Your task to perform on an android device: open app "ZOOM Cloud Meetings" (install if not already installed) and enter user name: "bauxite@icloud.com" and password: "dim" Image 0: 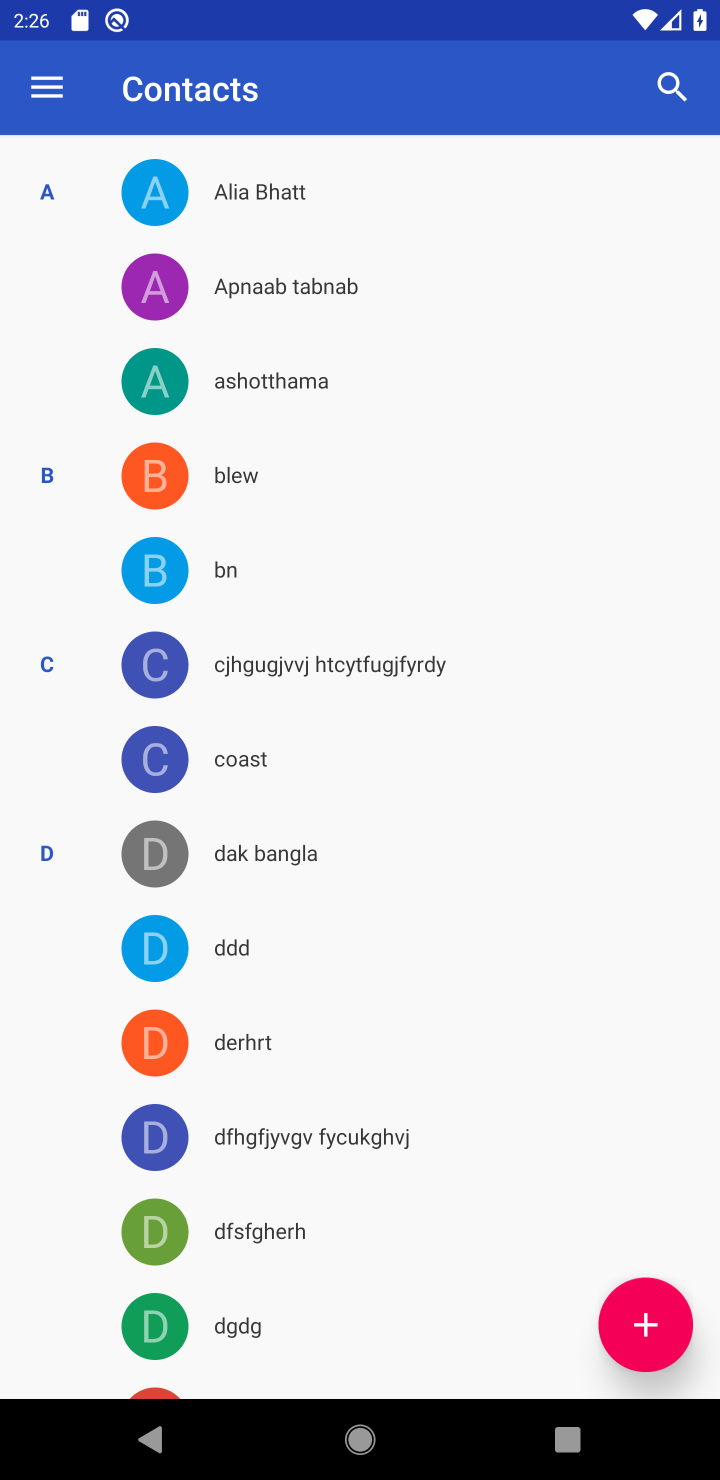
Step 0: press home button
Your task to perform on an android device: open app "ZOOM Cloud Meetings" (install if not already installed) and enter user name: "bauxite@icloud.com" and password: "dim" Image 1: 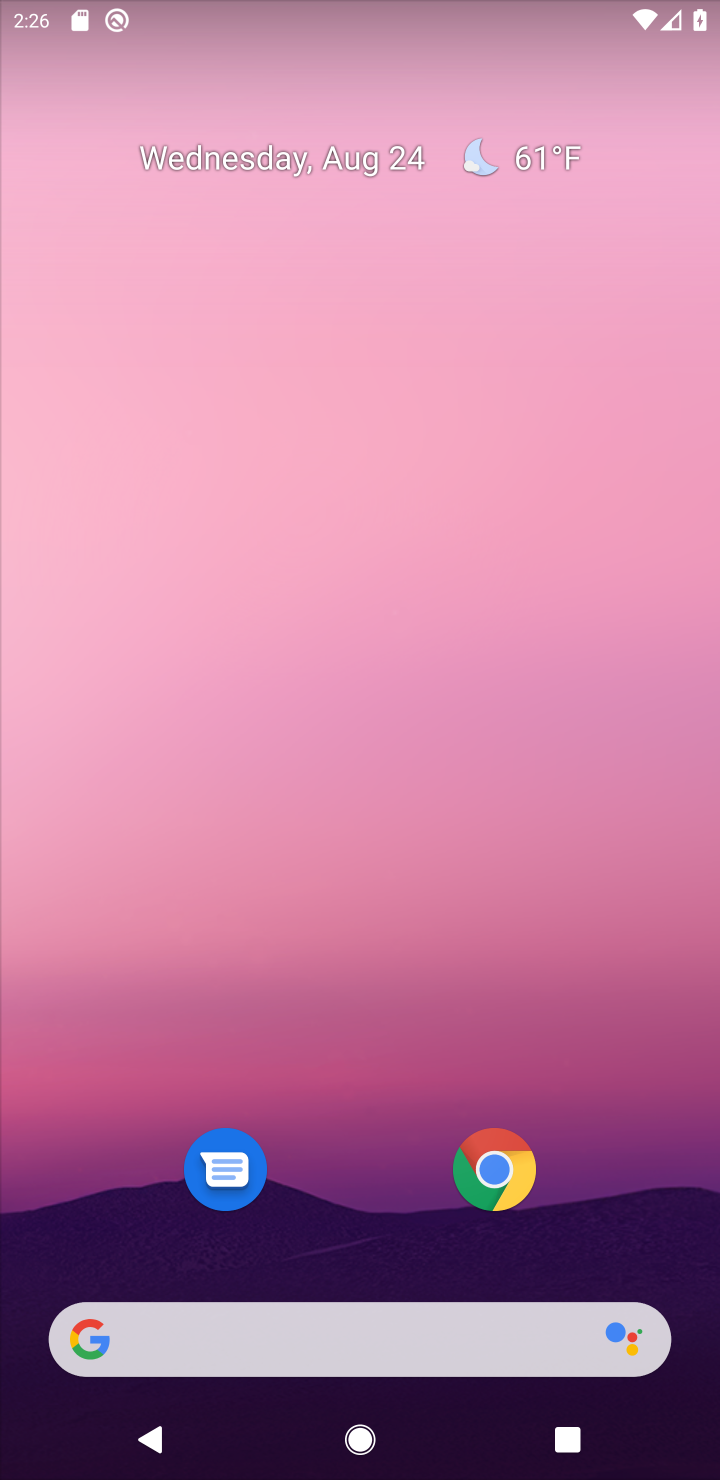
Step 1: drag from (412, 1253) to (43, 197)
Your task to perform on an android device: open app "ZOOM Cloud Meetings" (install if not already installed) and enter user name: "bauxite@icloud.com" and password: "dim" Image 2: 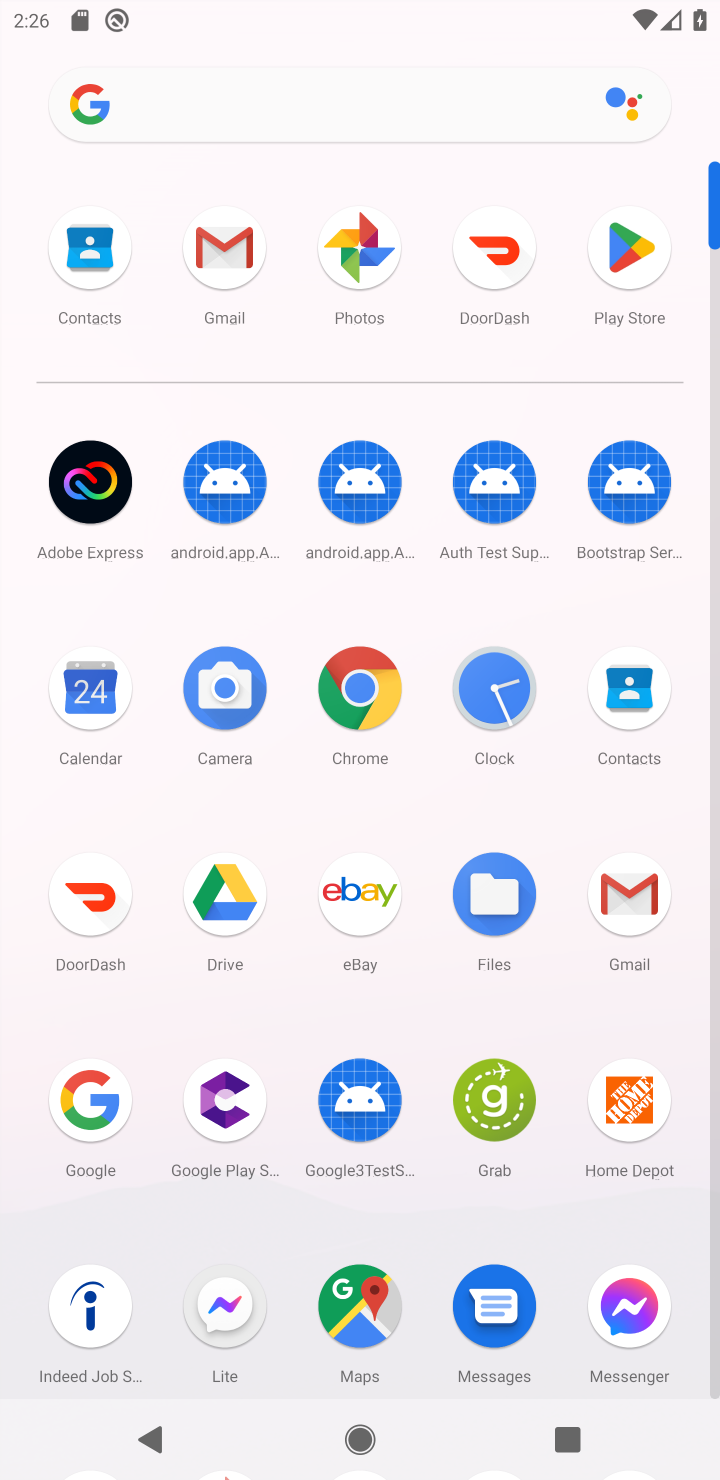
Step 2: click (628, 237)
Your task to perform on an android device: open app "ZOOM Cloud Meetings" (install if not already installed) and enter user name: "bauxite@icloud.com" and password: "dim" Image 3: 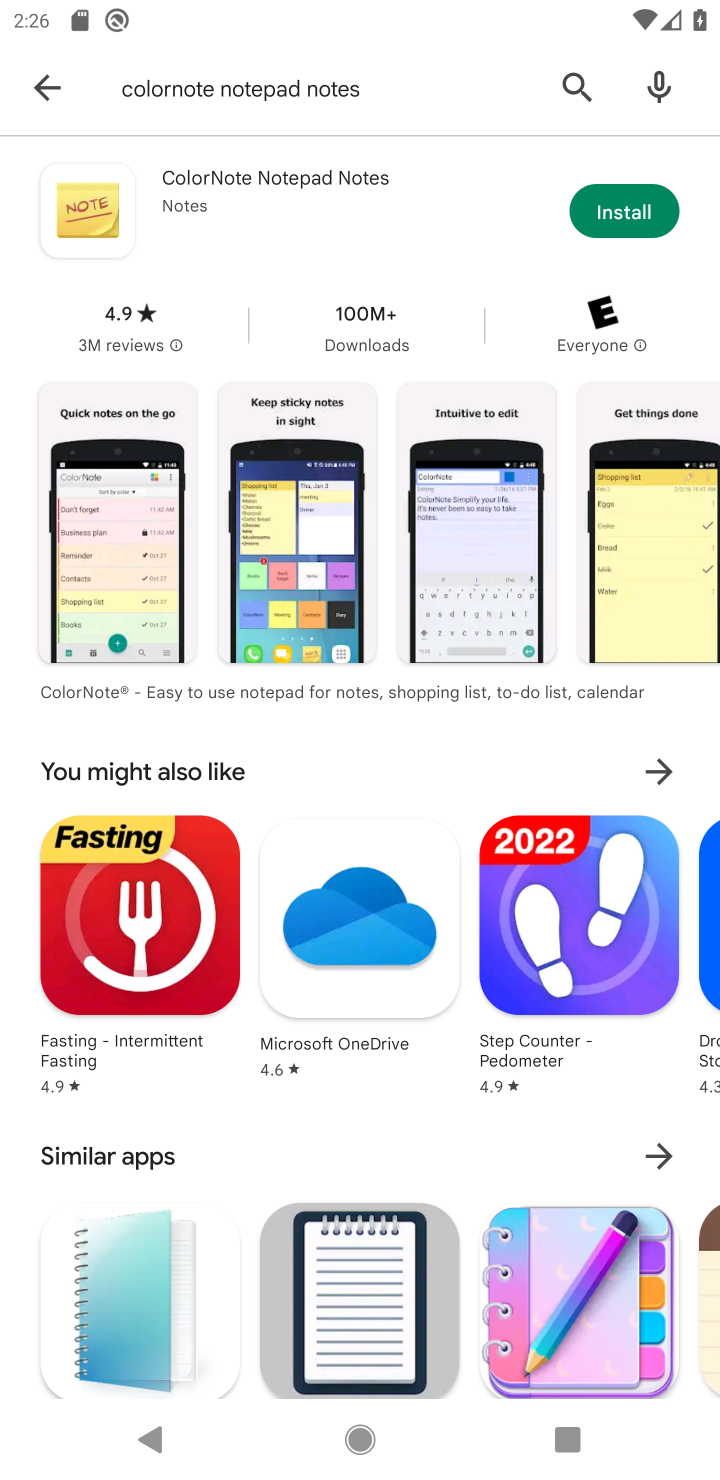
Step 3: click (45, 77)
Your task to perform on an android device: open app "ZOOM Cloud Meetings" (install if not already installed) and enter user name: "bauxite@icloud.com" and password: "dim" Image 4: 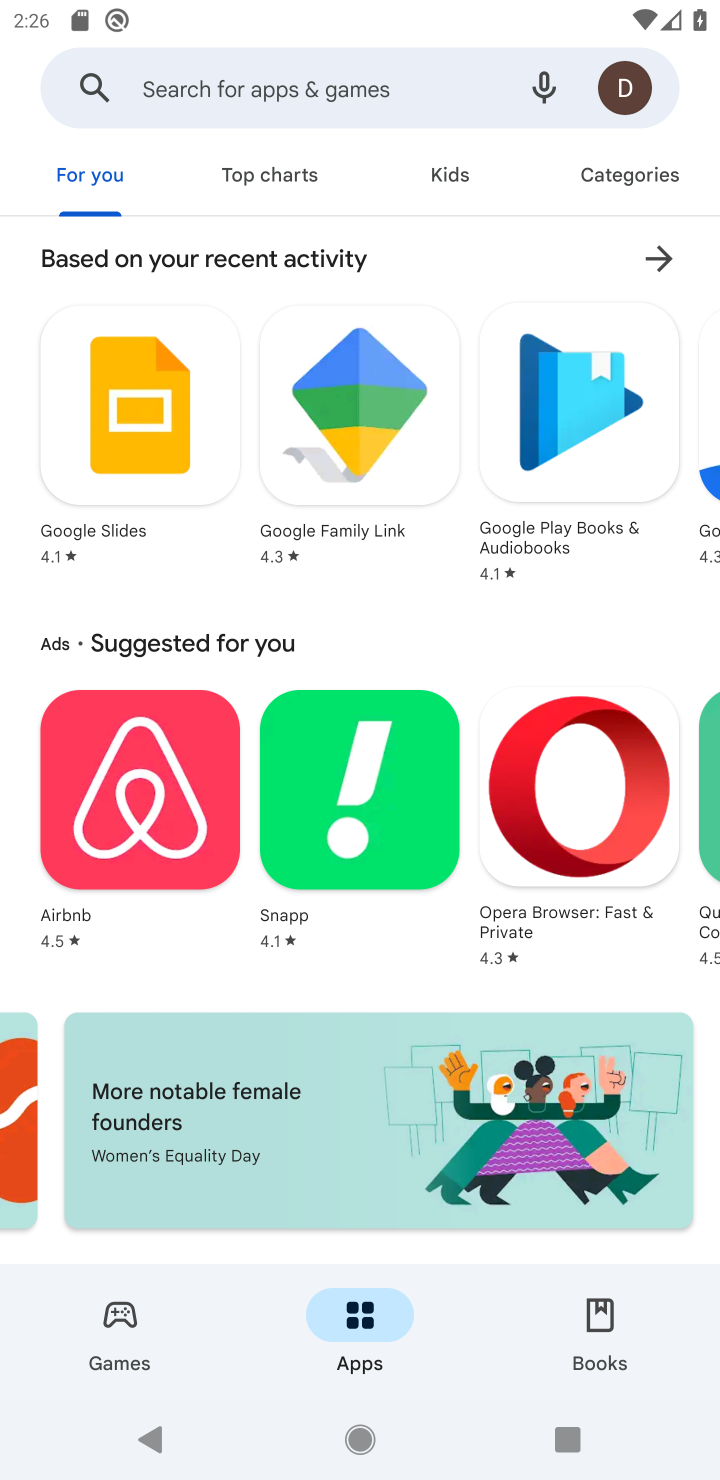
Step 4: click (170, 90)
Your task to perform on an android device: open app "ZOOM Cloud Meetings" (install if not already installed) and enter user name: "bauxite@icloud.com" and password: "dim" Image 5: 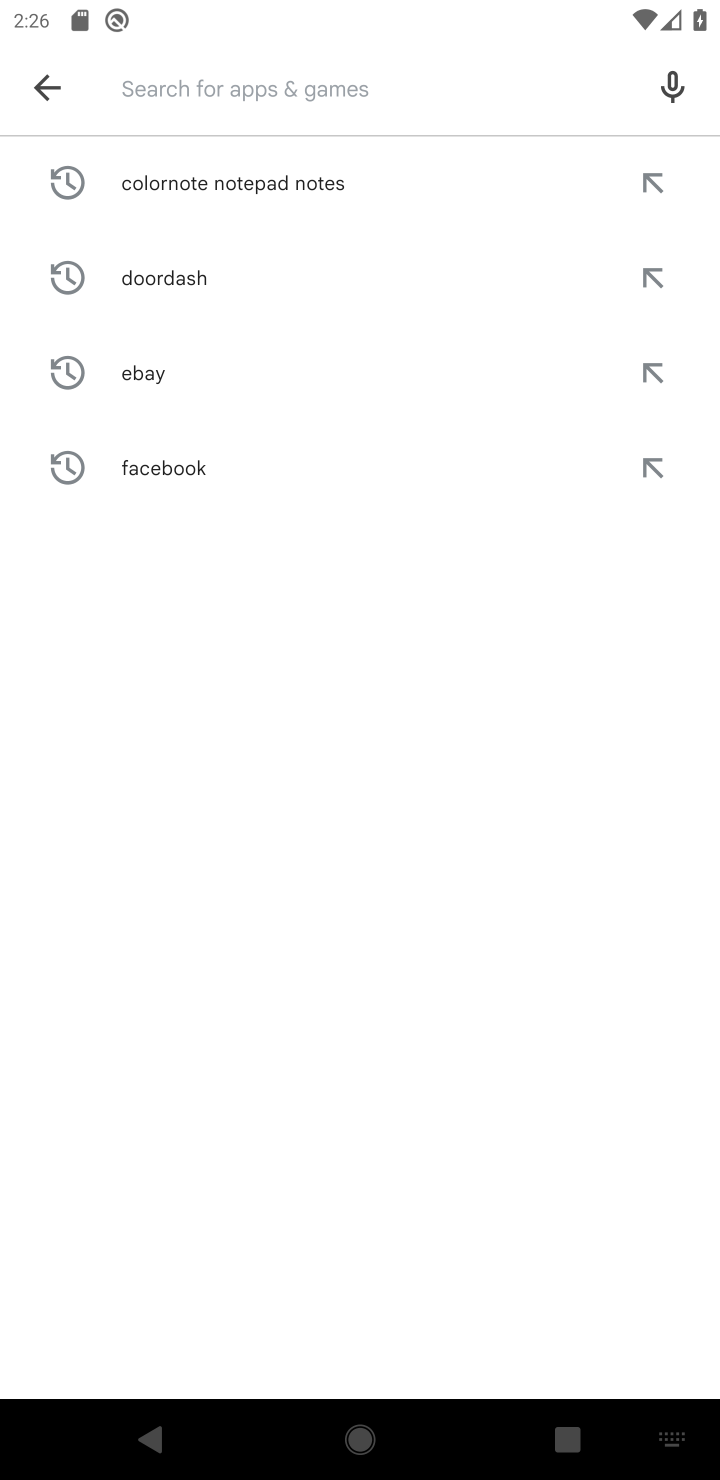
Step 5: drag from (149, 1452) to (271, 1473)
Your task to perform on an android device: open app "ZOOM Cloud Meetings" (install if not already installed) and enter user name: "bauxite@icloud.com" and password: "dim" Image 6: 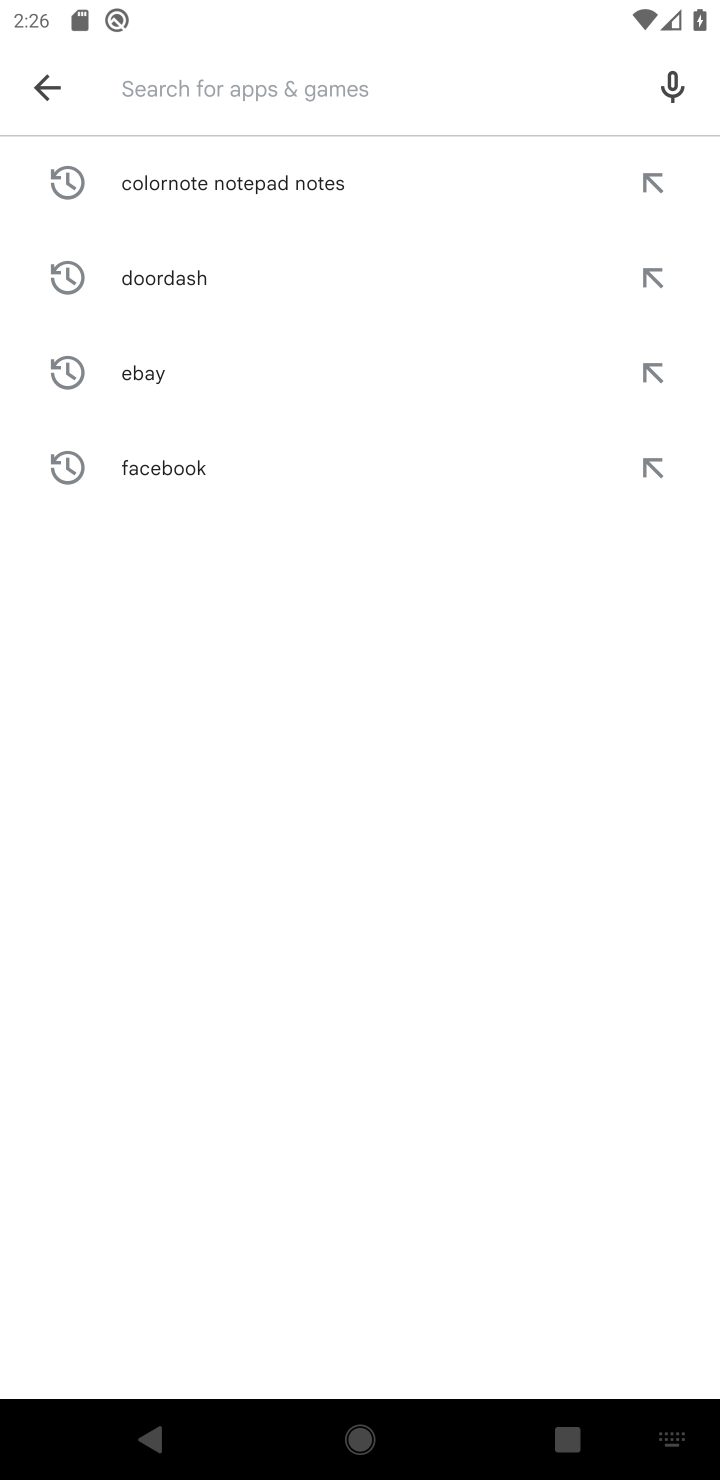
Step 6: type "ZOOM Cloud Meetings"
Your task to perform on an android device: open app "ZOOM Cloud Meetings" (install if not already installed) and enter user name: "bauxite@icloud.com" and password: "dim" Image 7: 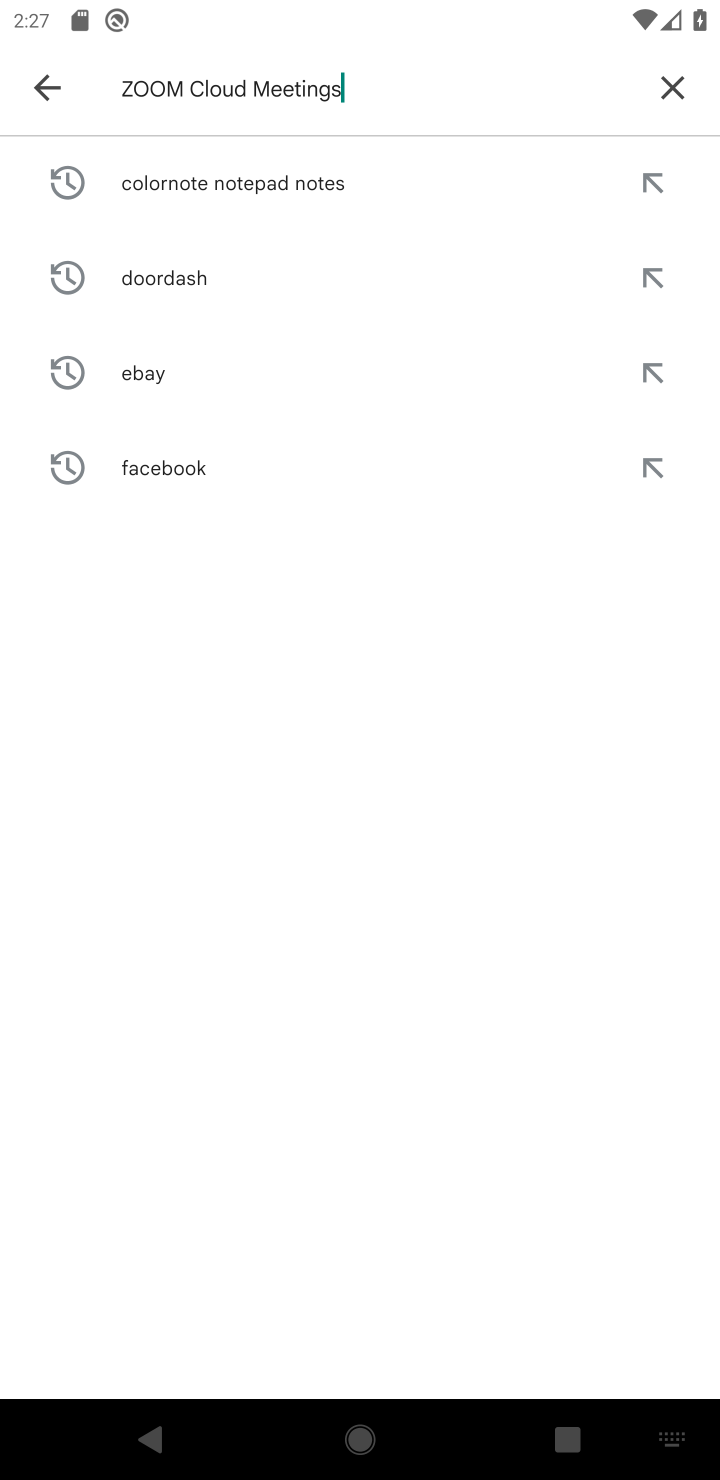
Step 7: drag from (271, 1473) to (683, 818)
Your task to perform on an android device: open app "ZOOM Cloud Meetings" (install if not already installed) and enter user name: "bauxite@icloud.com" and password: "dim" Image 8: 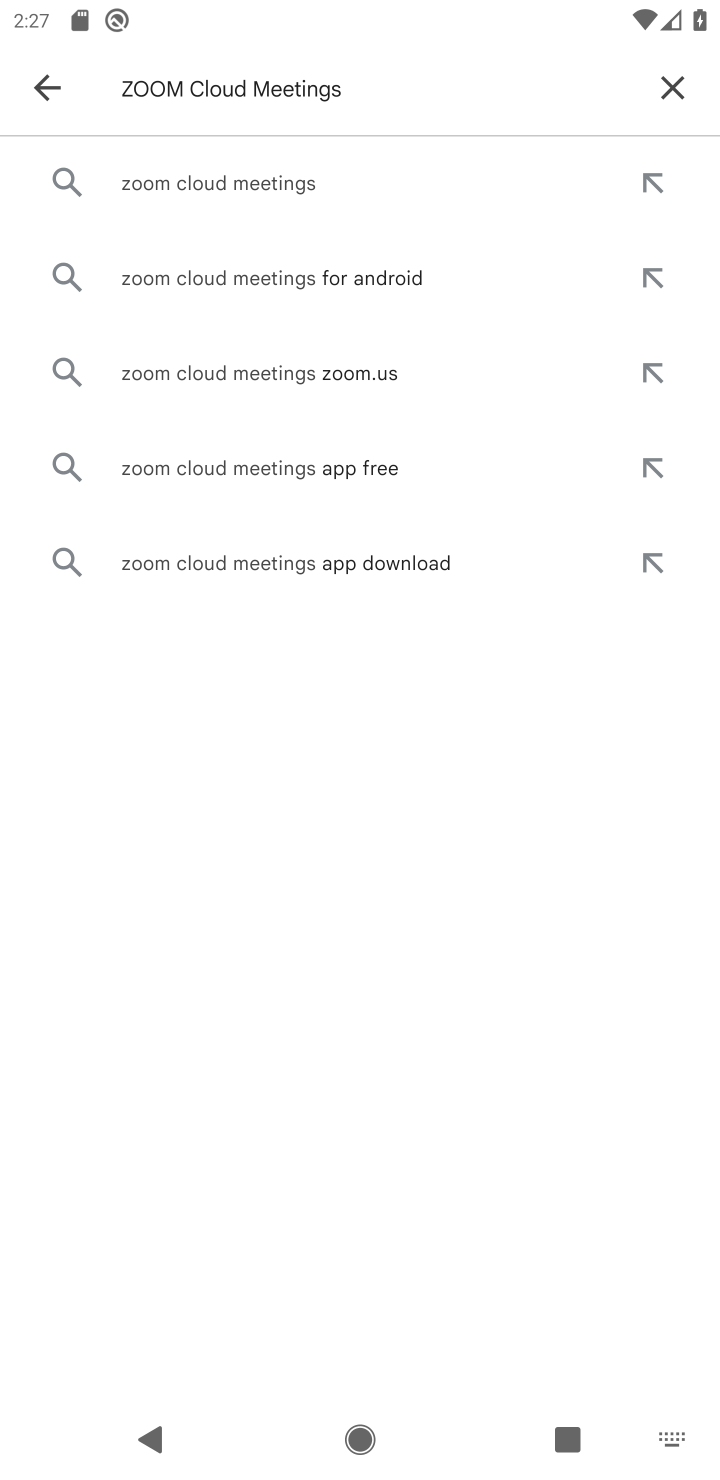
Step 8: click (326, 186)
Your task to perform on an android device: open app "ZOOM Cloud Meetings" (install if not already installed) and enter user name: "bauxite@icloud.com" and password: "dim" Image 9: 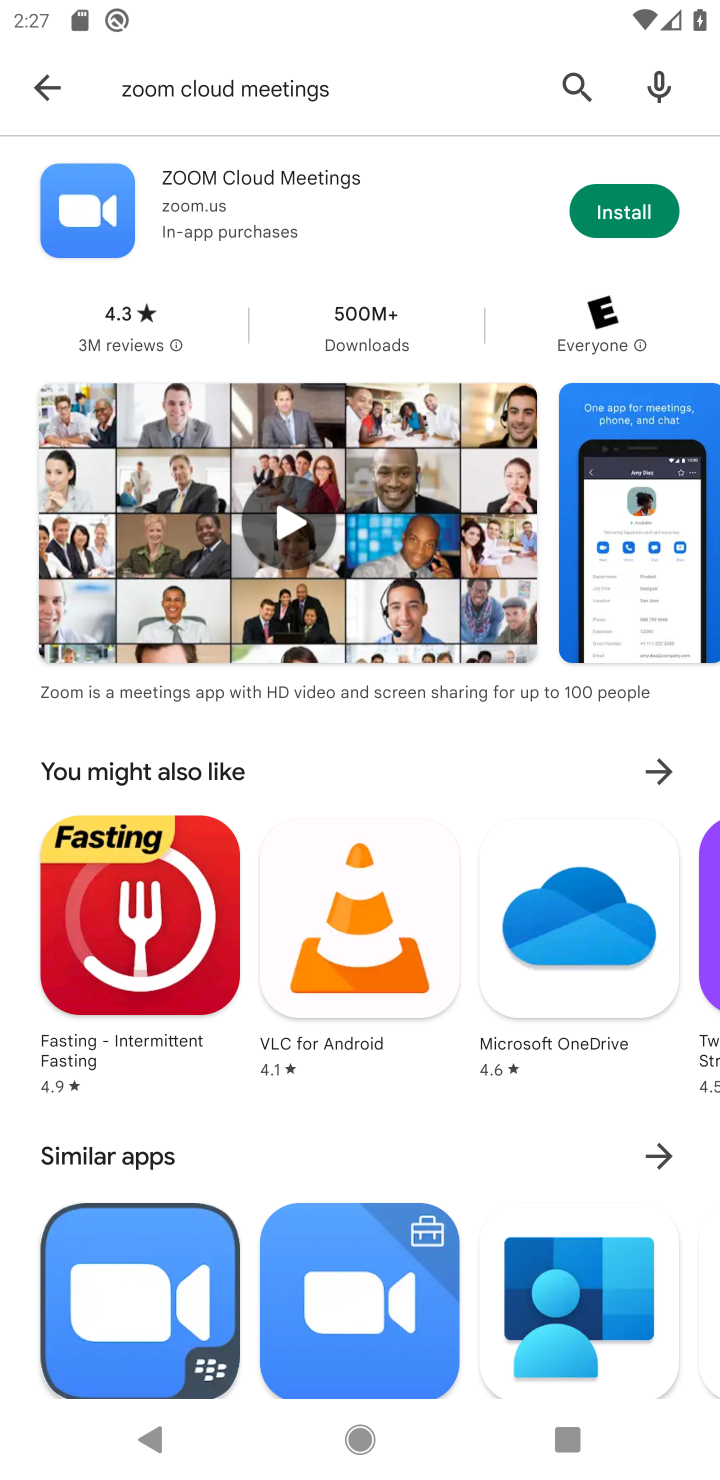
Step 9: click (649, 219)
Your task to perform on an android device: open app "ZOOM Cloud Meetings" (install if not already installed) and enter user name: "bauxite@icloud.com" and password: "dim" Image 10: 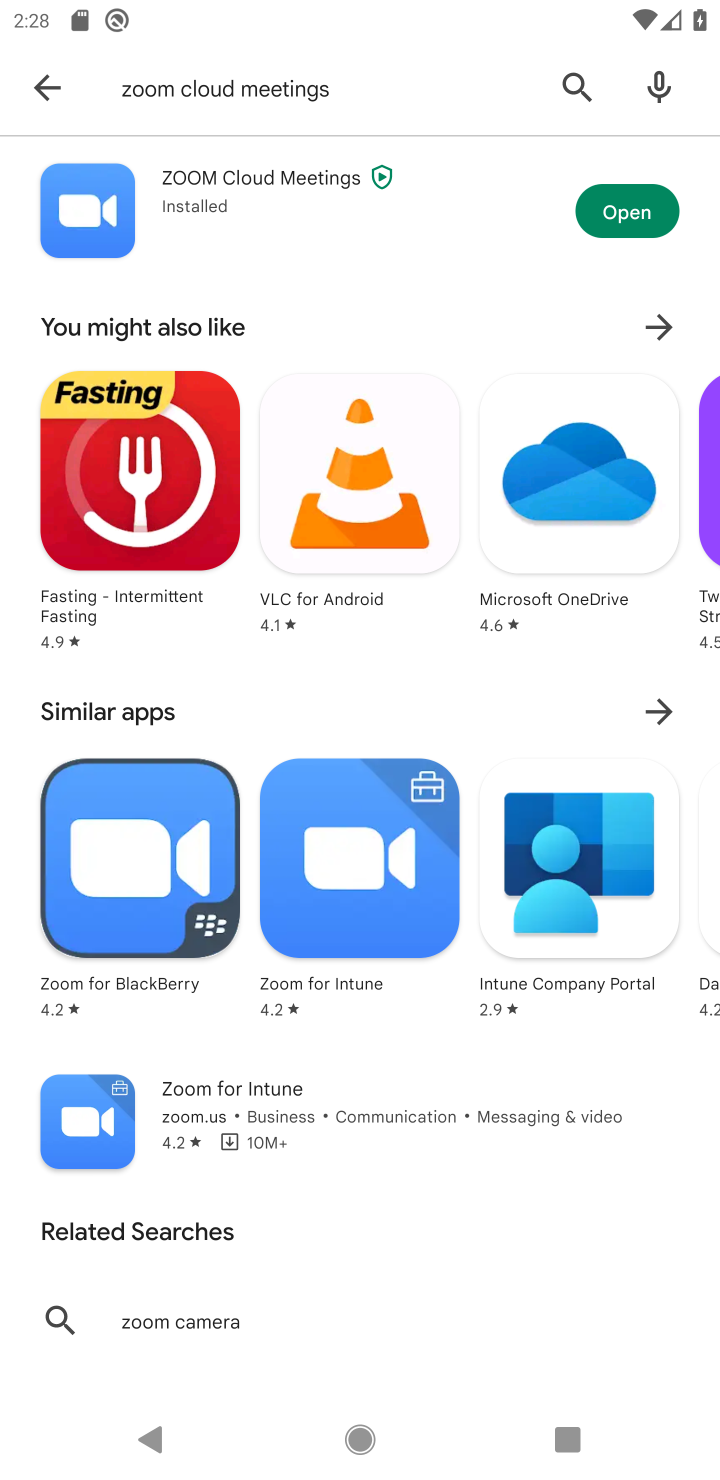
Step 10: click (639, 229)
Your task to perform on an android device: open app "ZOOM Cloud Meetings" (install if not already installed) and enter user name: "bauxite@icloud.com" and password: "dim" Image 11: 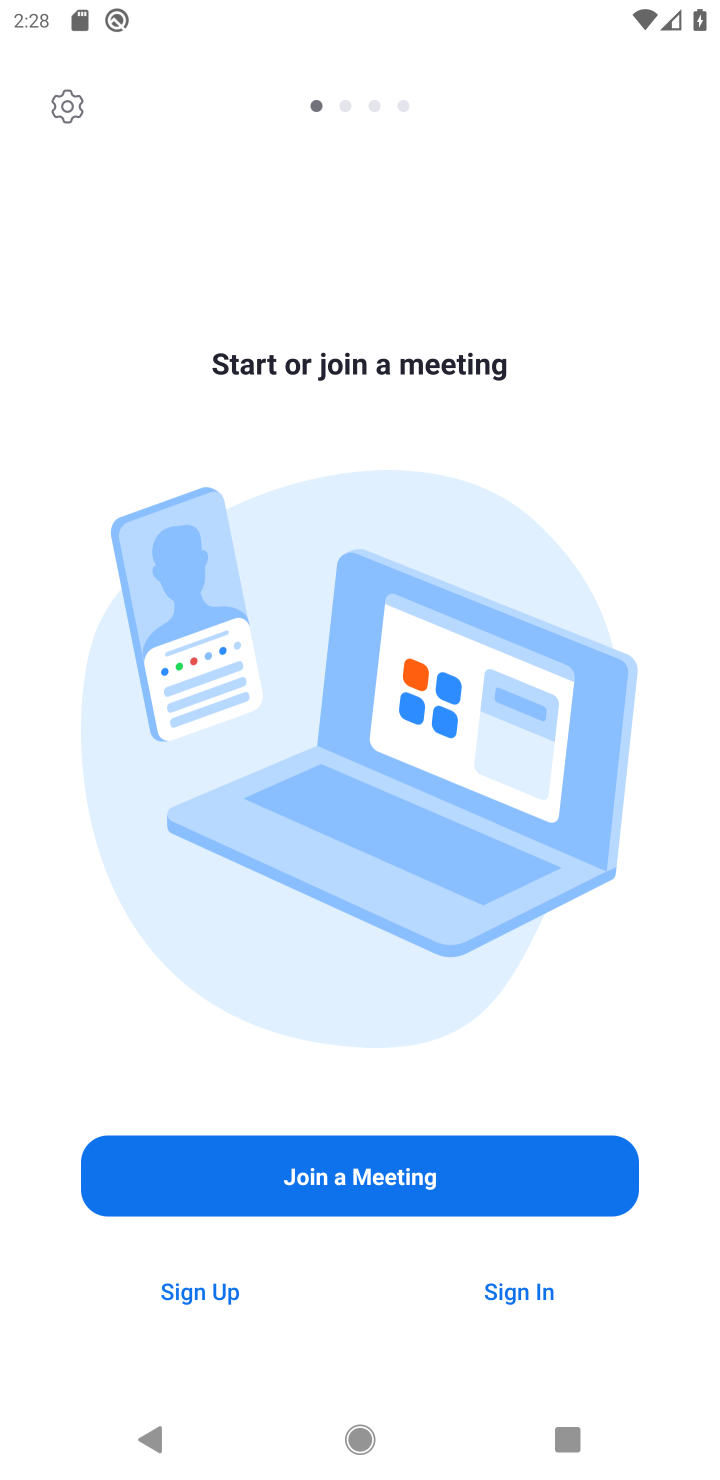
Step 11: click (503, 1297)
Your task to perform on an android device: open app "ZOOM Cloud Meetings" (install if not already installed) and enter user name: "bauxite@icloud.com" and password: "dim" Image 12: 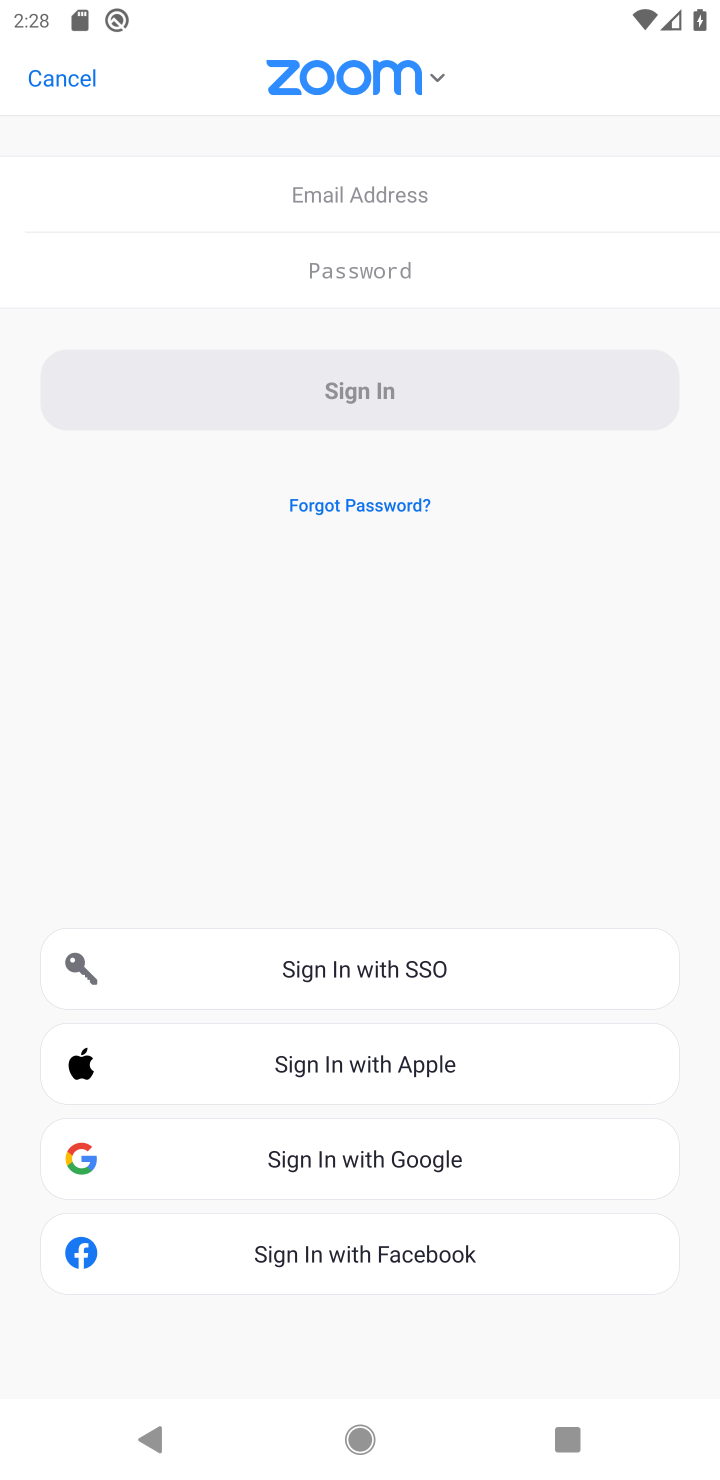
Step 12: click (364, 211)
Your task to perform on an android device: open app "ZOOM Cloud Meetings" (install if not already installed) and enter user name: "bauxite@icloud.com" and password: "dim" Image 13: 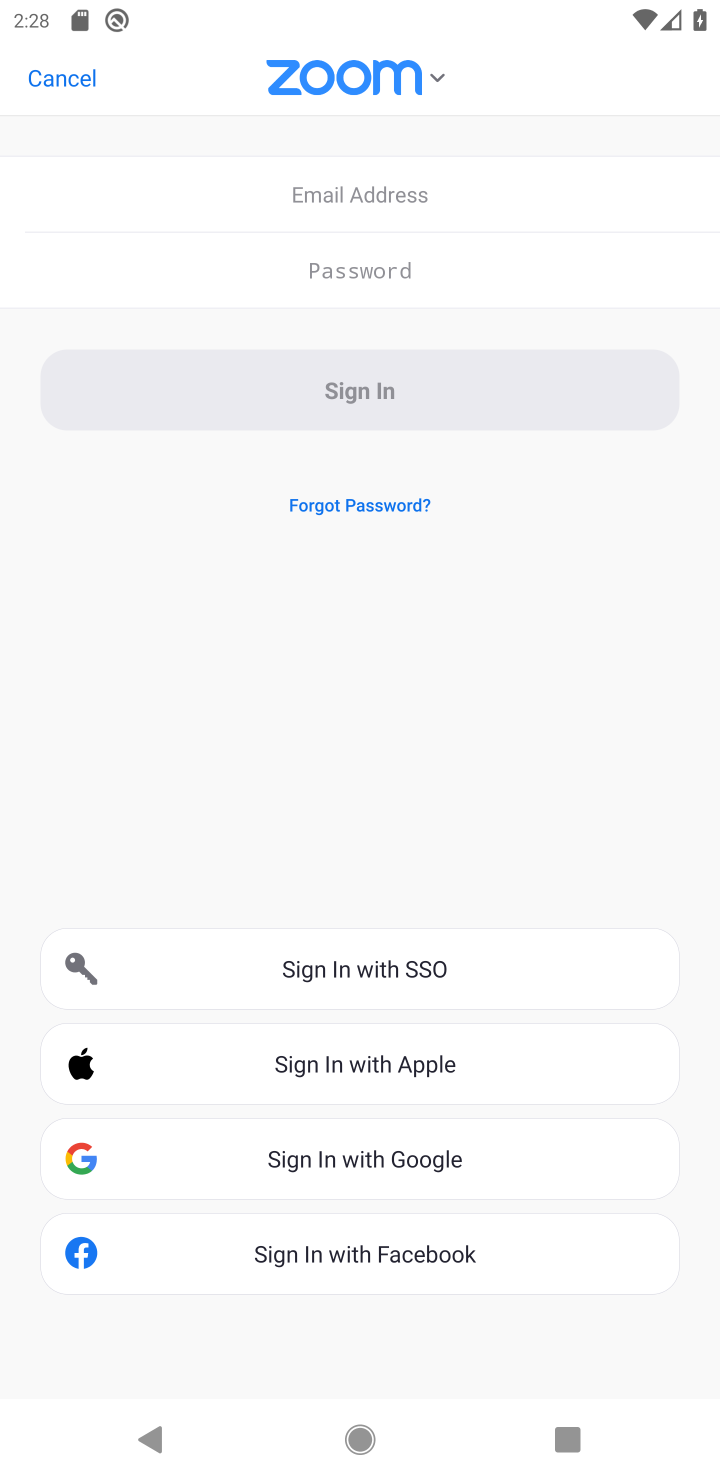
Step 13: click (477, 182)
Your task to perform on an android device: open app "ZOOM Cloud Meetings" (install if not already installed) and enter user name: "bauxite@icloud.com" and password: "dim" Image 14: 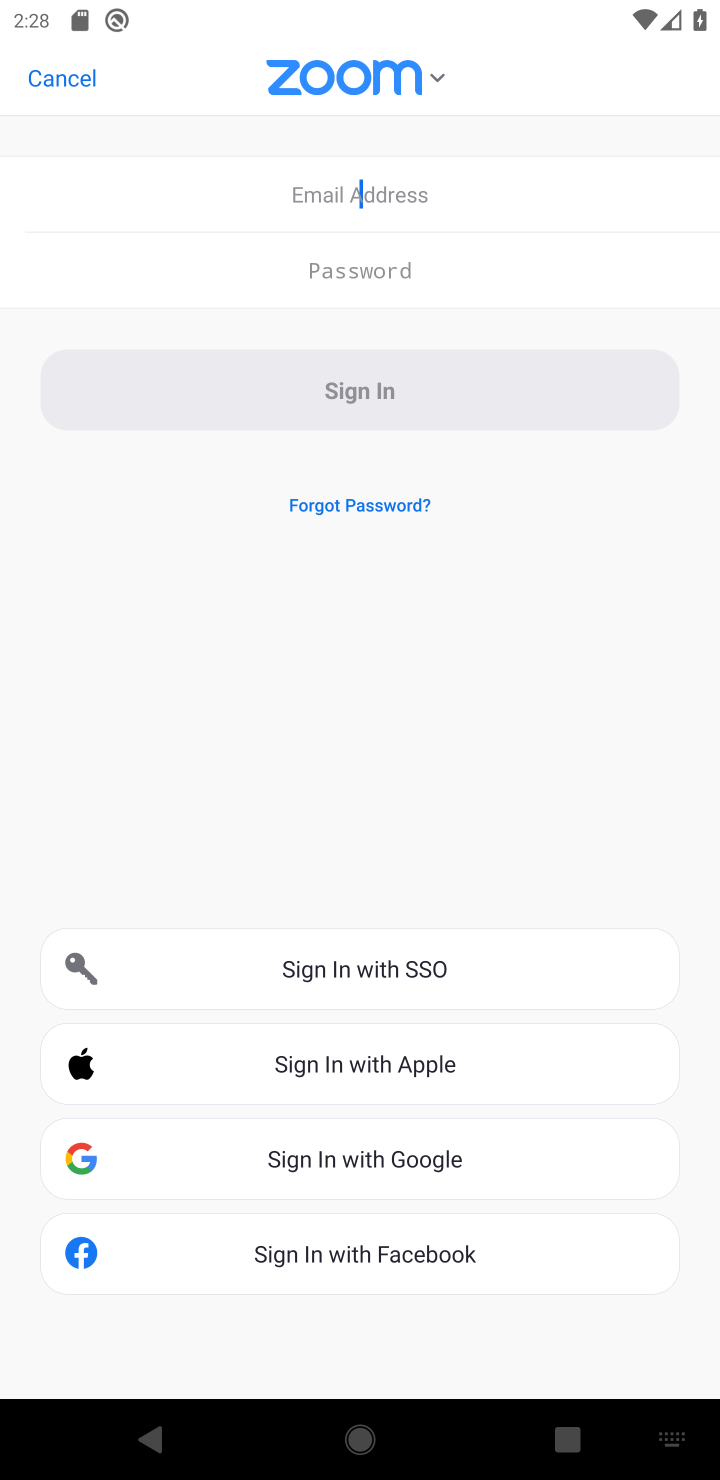
Step 14: type "bauxite@icloud.com"
Your task to perform on an android device: open app "ZOOM Cloud Meetings" (install if not already installed) and enter user name: "bauxite@icloud.com" and password: "dim" Image 15: 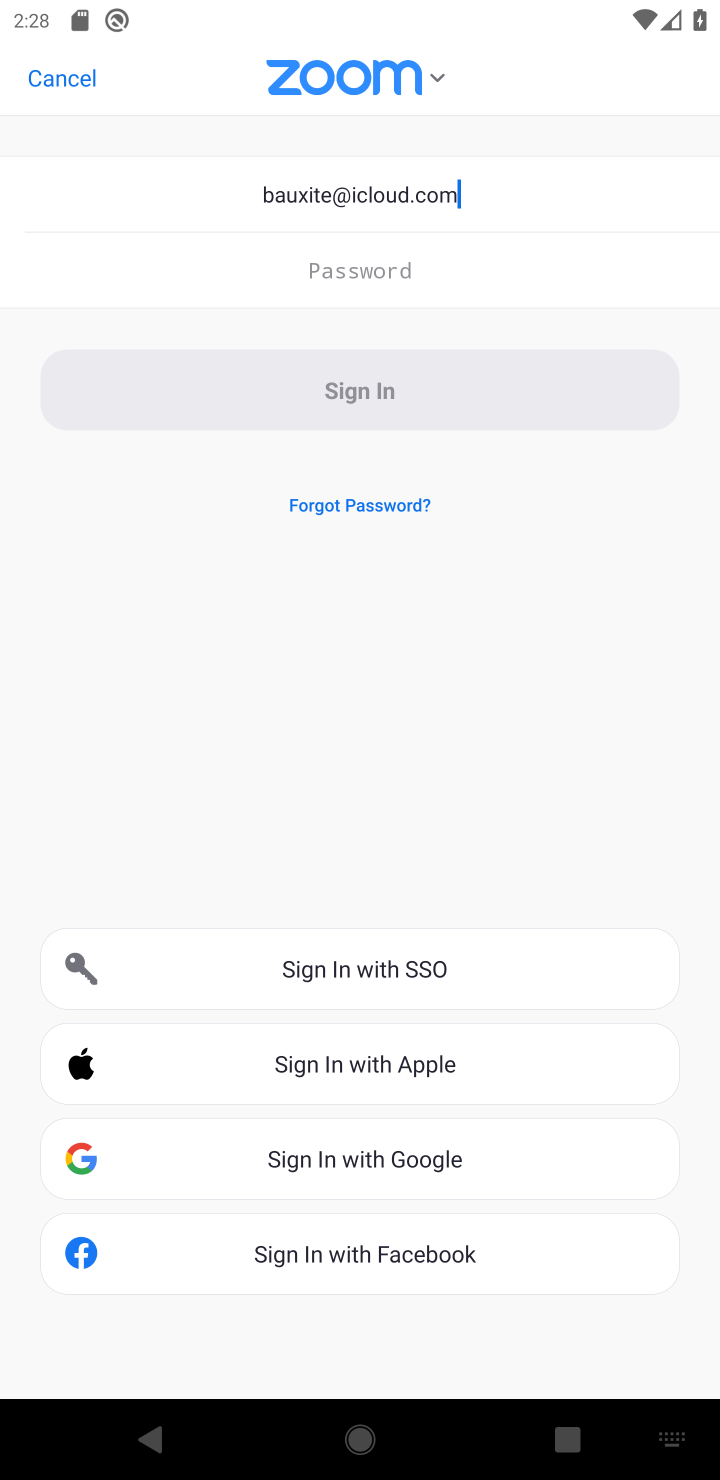
Step 15: click (283, 272)
Your task to perform on an android device: open app "ZOOM Cloud Meetings" (install if not already installed) and enter user name: "bauxite@icloud.com" and password: "dim" Image 16: 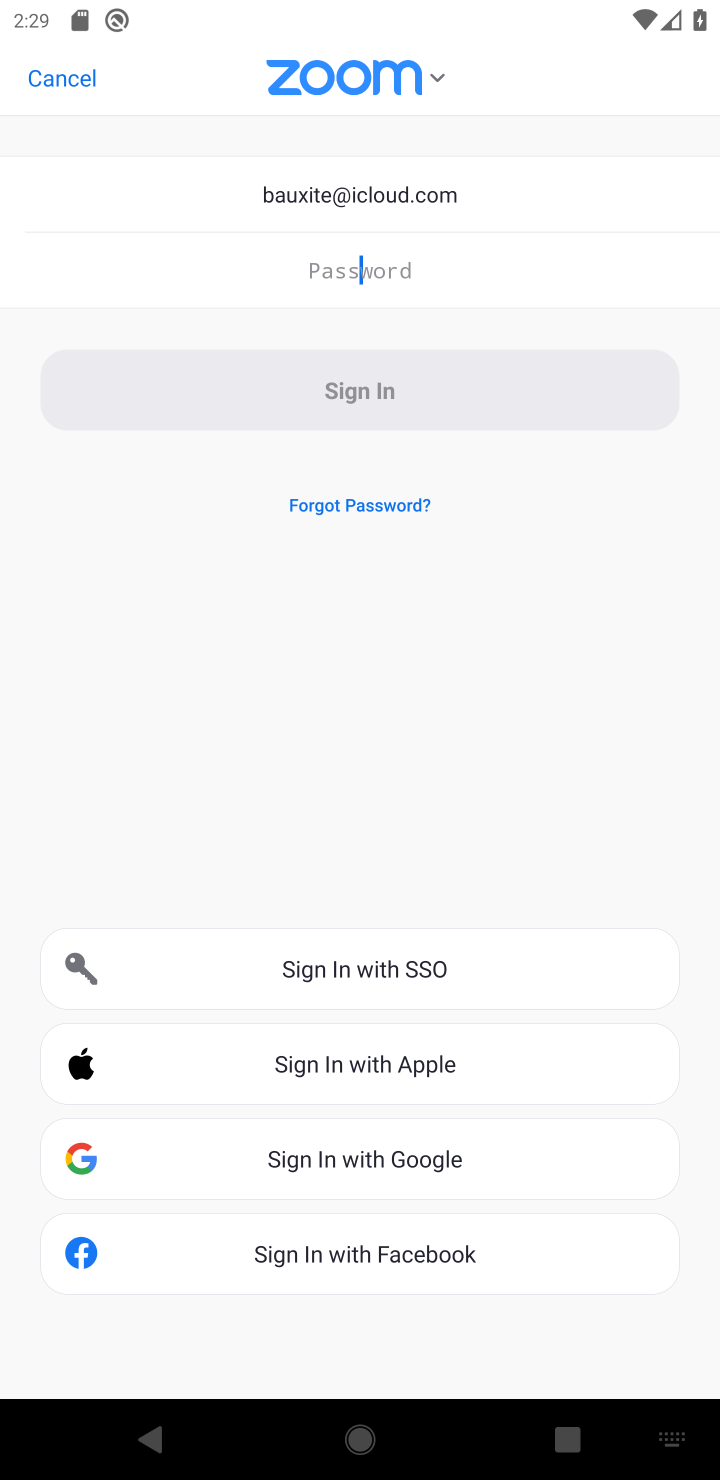
Step 16: type "dim"
Your task to perform on an android device: open app "ZOOM Cloud Meetings" (install if not already installed) and enter user name: "bauxite@icloud.com" and password: "dim" Image 17: 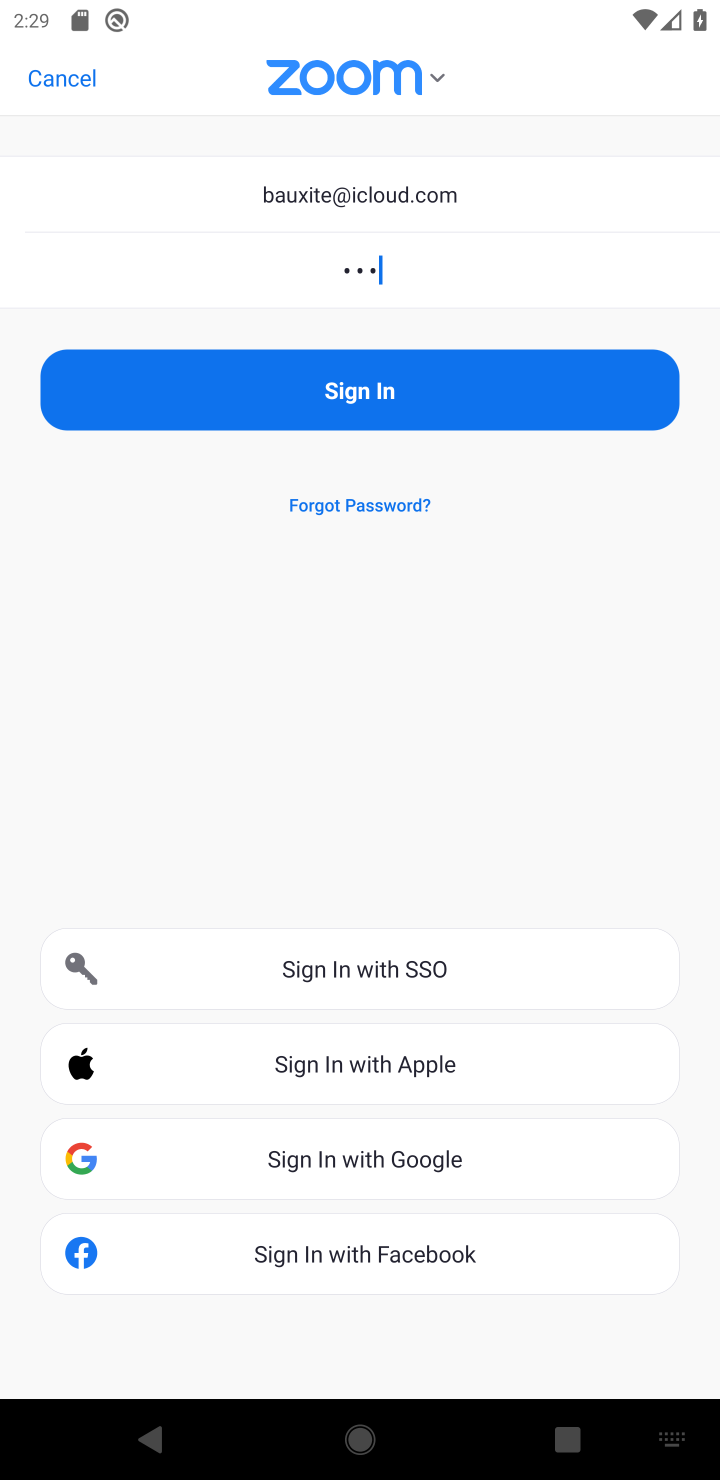
Step 17: task complete